Your task to perform on an android device: Do I have any events this weekend? Image 0: 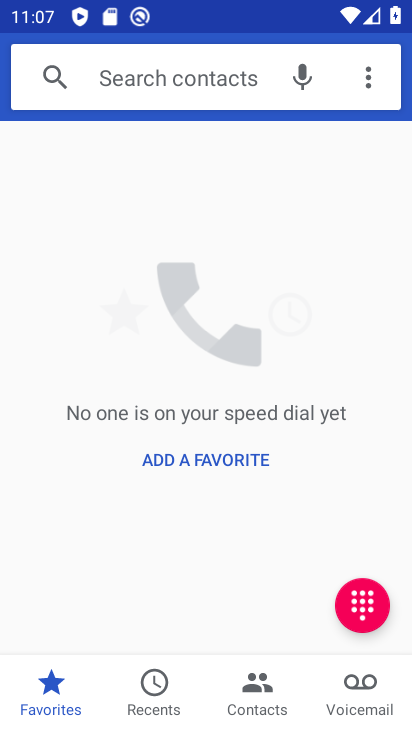
Step 0: press home button
Your task to perform on an android device: Do I have any events this weekend? Image 1: 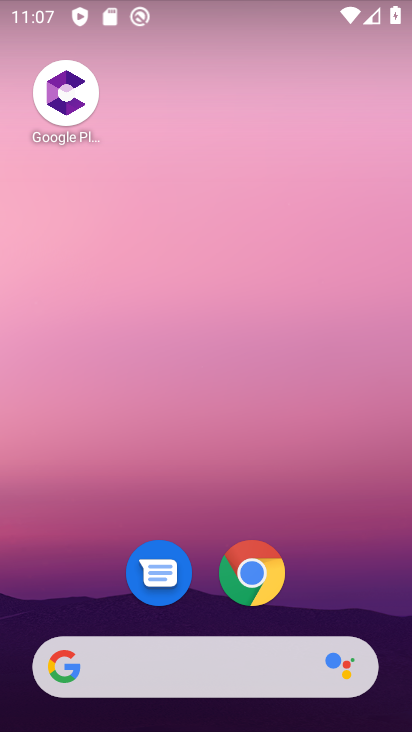
Step 1: drag from (161, 658) to (360, 79)
Your task to perform on an android device: Do I have any events this weekend? Image 2: 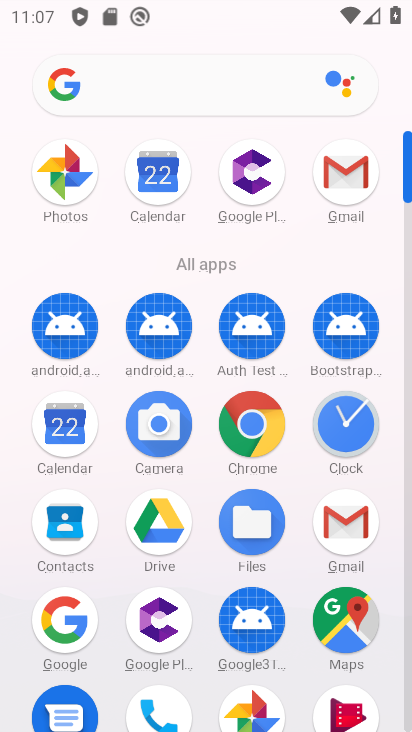
Step 2: click (66, 442)
Your task to perform on an android device: Do I have any events this weekend? Image 3: 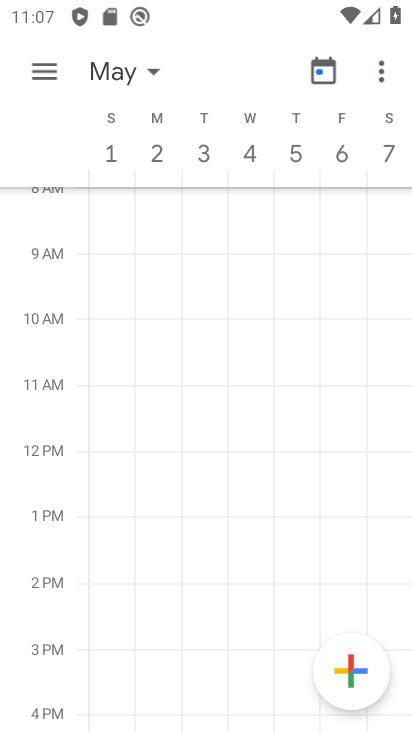
Step 3: click (123, 69)
Your task to perform on an android device: Do I have any events this weekend? Image 4: 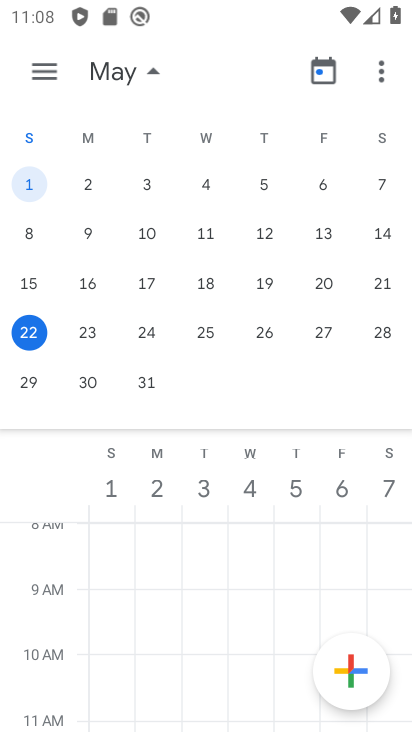
Step 4: click (389, 334)
Your task to perform on an android device: Do I have any events this weekend? Image 5: 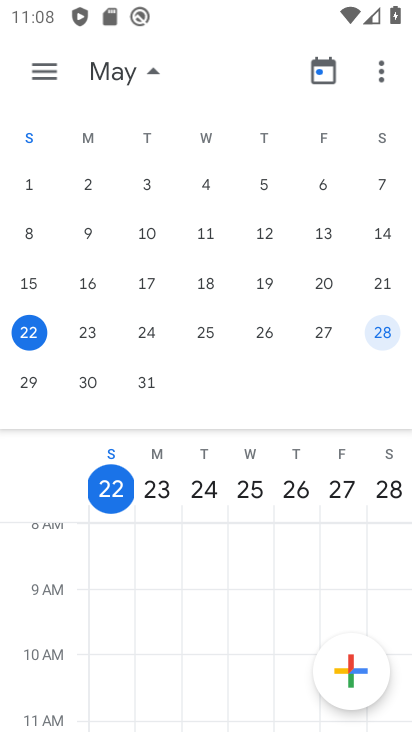
Step 5: click (48, 76)
Your task to perform on an android device: Do I have any events this weekend? Image 6: 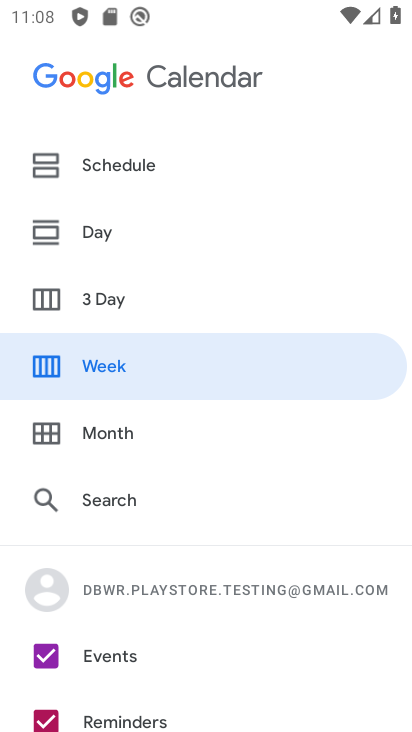
Step 6: click (113, 227)
Your task to perform on an android device: Do I have any events this weekend? Image 7: 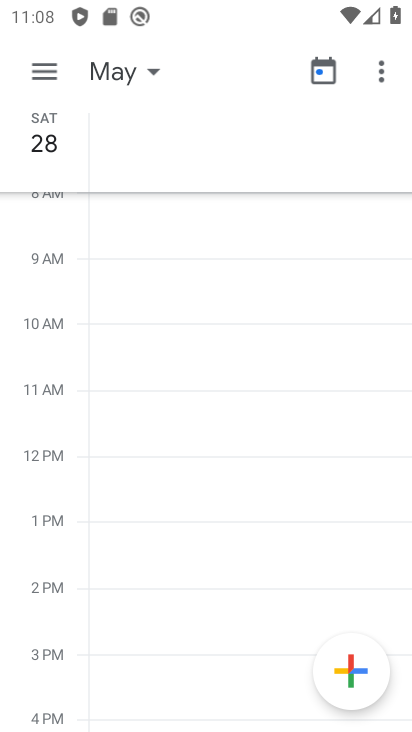
Step 7: click (45, 69)
Your task to perform on an android device: Do I have any events this weekend? Image 8: 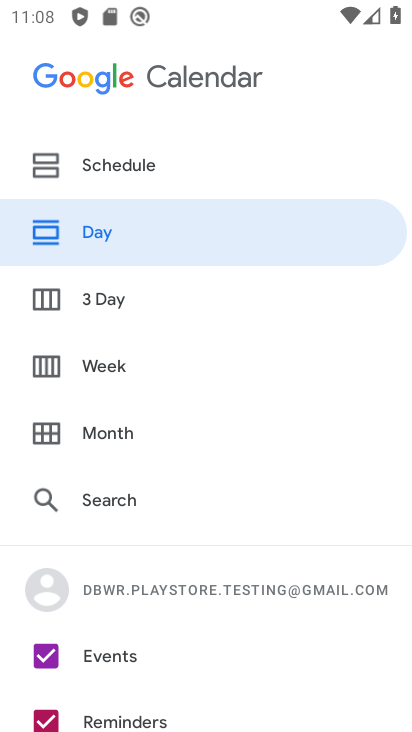
Step 8: click (138, 163)
Your task to perform on an android device: Do I have any events this weekend? Image 9: 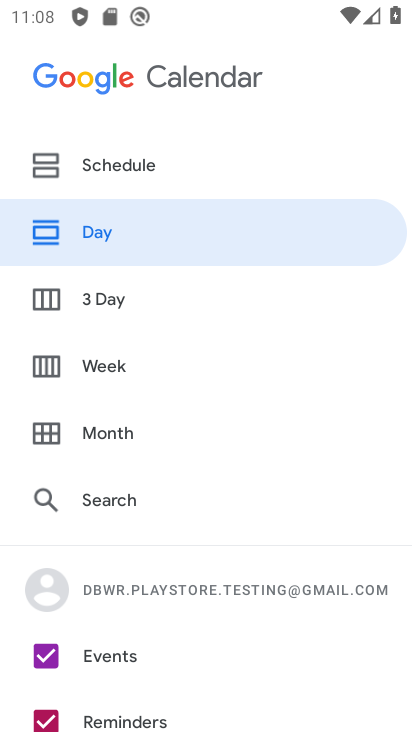
Step 9: click (138, 163)
Your task to perform on an android device: Do I have any events this weekend? Image 10: 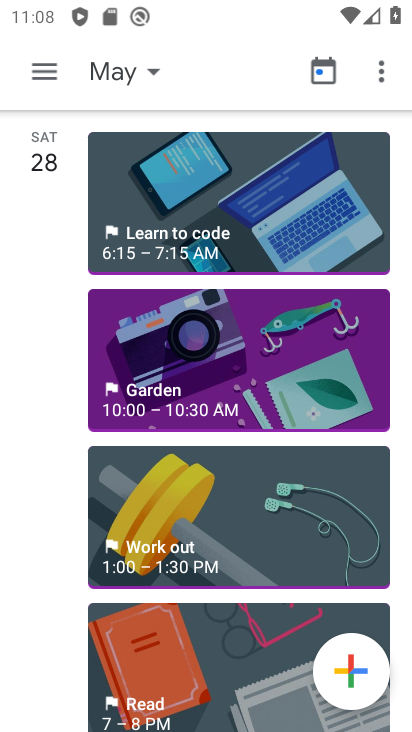
Step 10: click (186, 332)
Your task to perform on an android device: Do I have any events this weekend? Image 11: 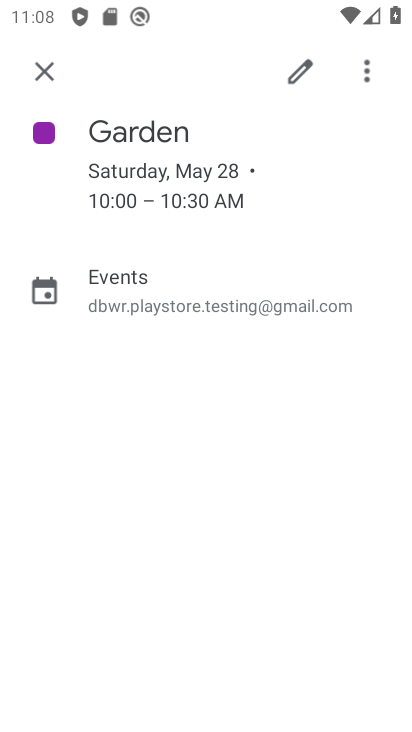
Step 11: task complete